Your task to perform on an android device: Go to display settings Image 0: 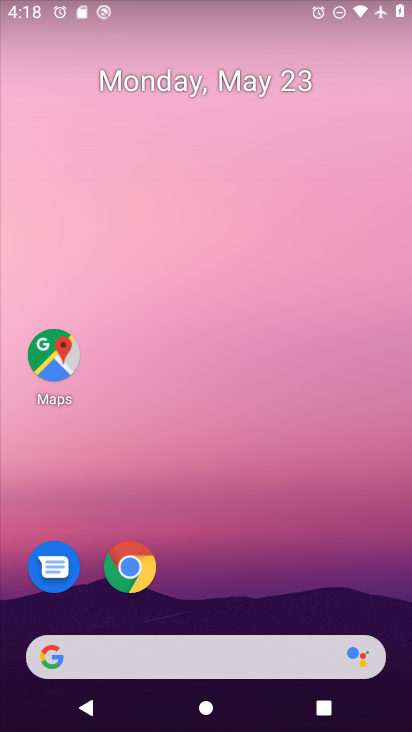
Step 0: drag from (388, 618) to (350, 102)
Your task to perform on an android device: Go to display settings Image 1: 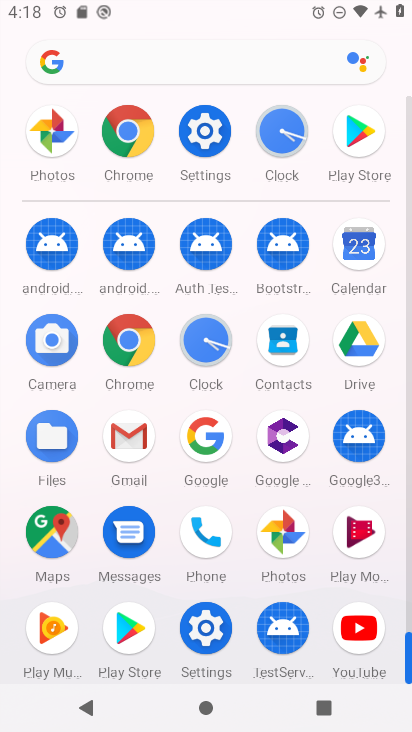
Step 1: click (208, 624)
Your task to perform on an android device: Go to display settings Image 2: 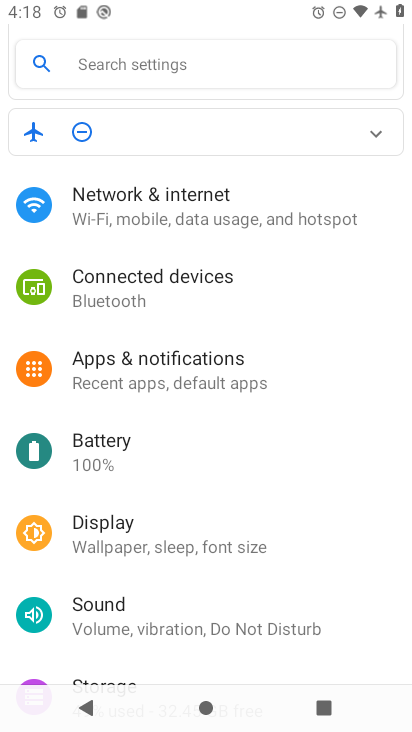
Step 2: click (83, 522)
Your task to perform on an android device: Go to display settings Image 3: 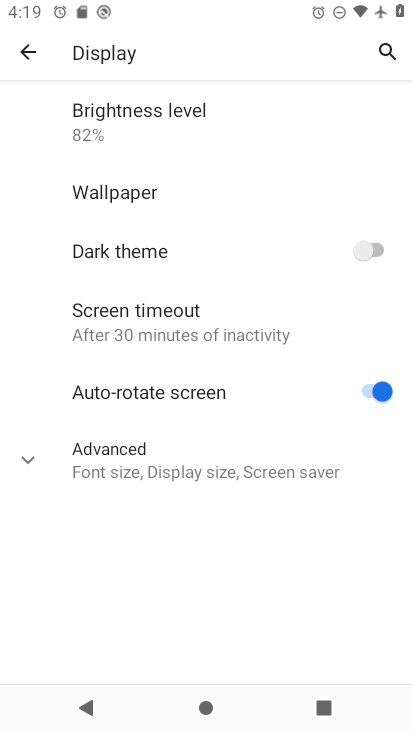
Step 3: click (15, 451)
Your task to perform on an android device: Go to display settings Image 4: 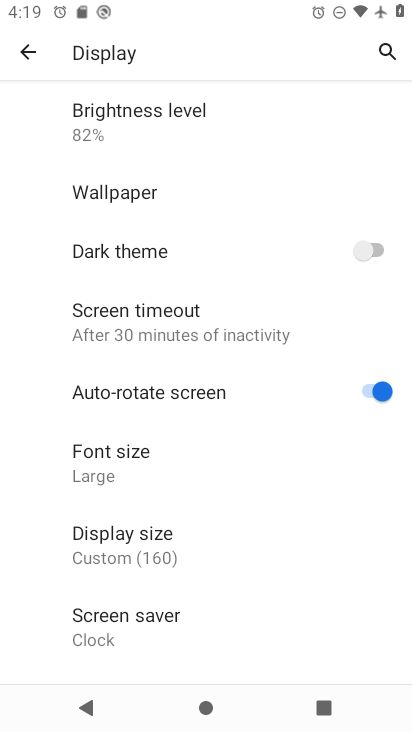
Step 4: task complete